Your task to perform on an android device: Open network settings Image 0: 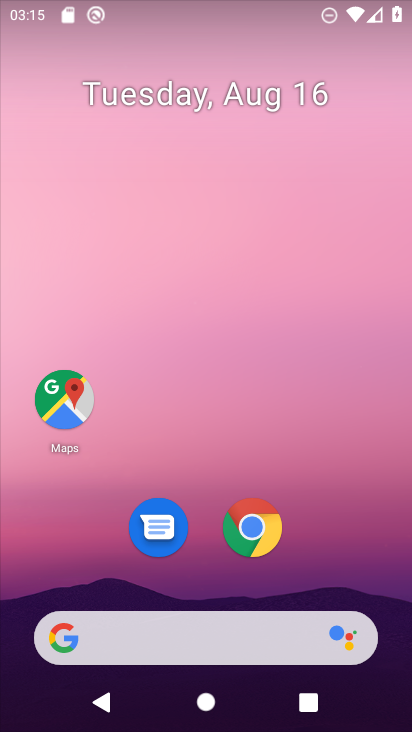
Step 0: drag from (211, 581) to (266, 2)
Your task to perform on an android device: Open network settings Image 1: 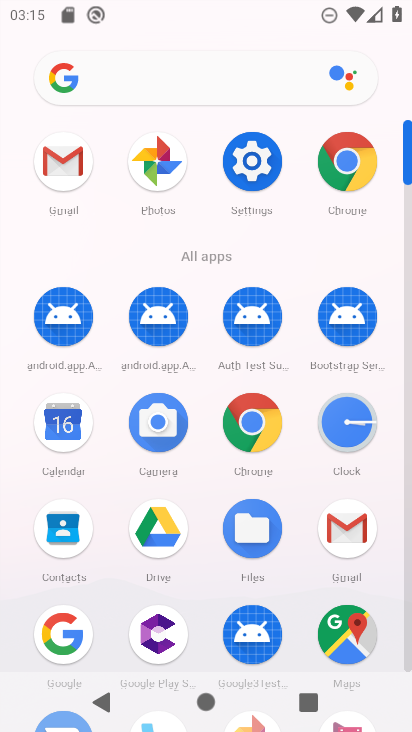
Step 1: click (252, 155)
Your task to perform on an android device: Open network settings Image 2: 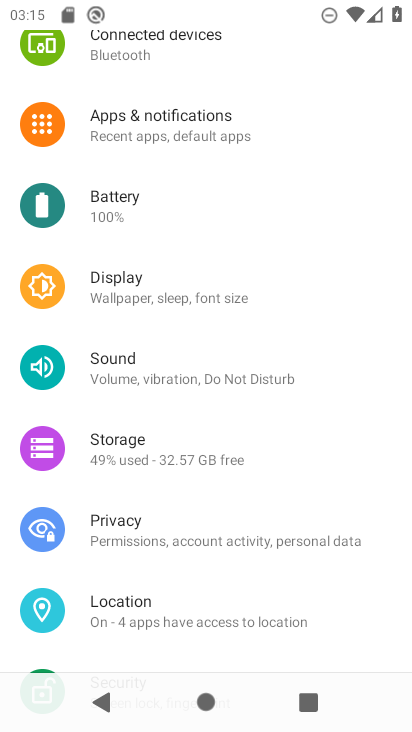
Step 2: drag from (147, 90) to (199, 623)
Your task to perform on an android device: Open network settings Image 3: 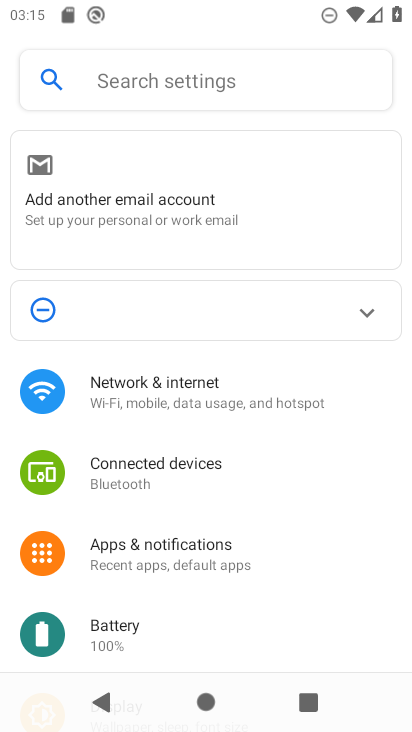
Step 3: click (183, 160)
Your task to perform on an android device: Open network settings Image 4: 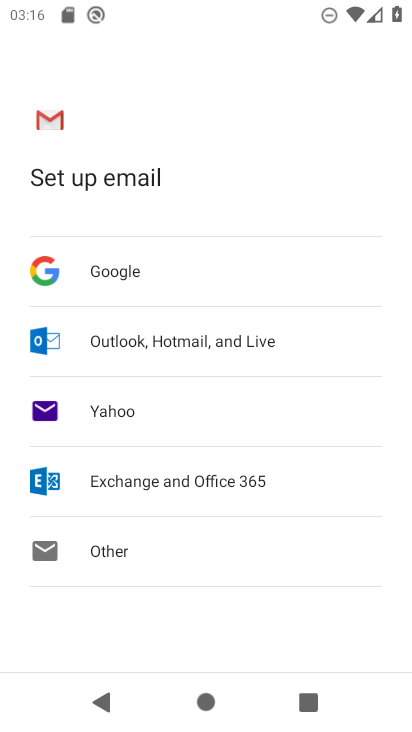
Step 4: press home button
Your task to perform on an android device: Open network settings Image 5: 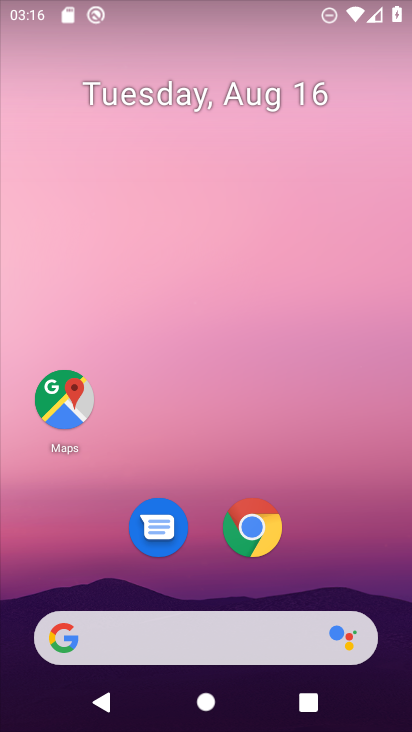
Step 5: drag from (205, 585) to (232, 130)
Your task to perform on an android device: Open network settings Image 6: 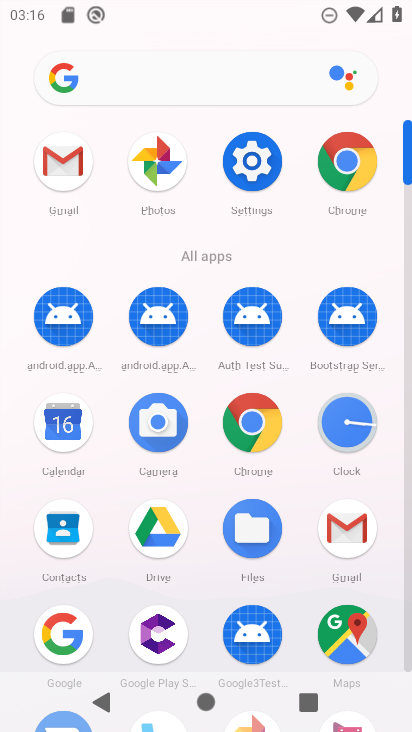
Step 6: click (254, 150)
Your task to perform on an android device: Open network settings Image 7: 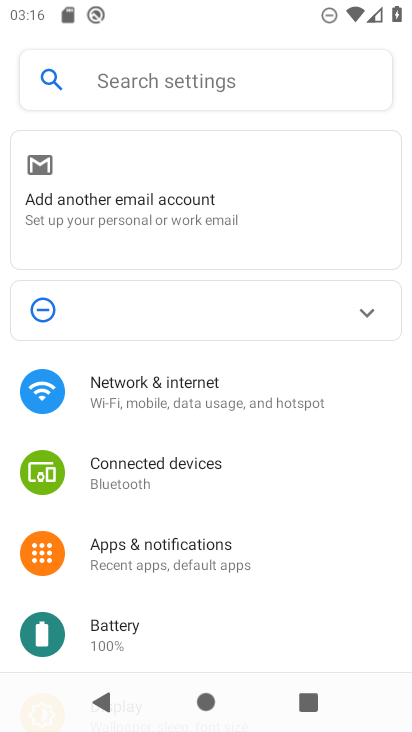
Step 7: click (222, 383)
Your task to perform on an android device: Open network settings Image 8: 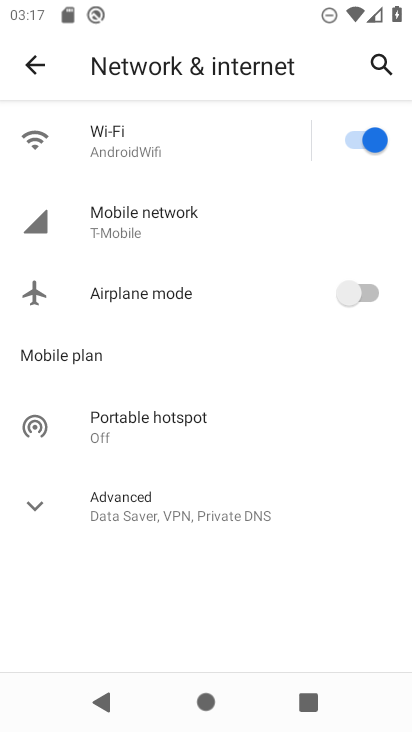
Step 8: click (161, 138)
Your task to perform on an android device: Open network settings Image 9: 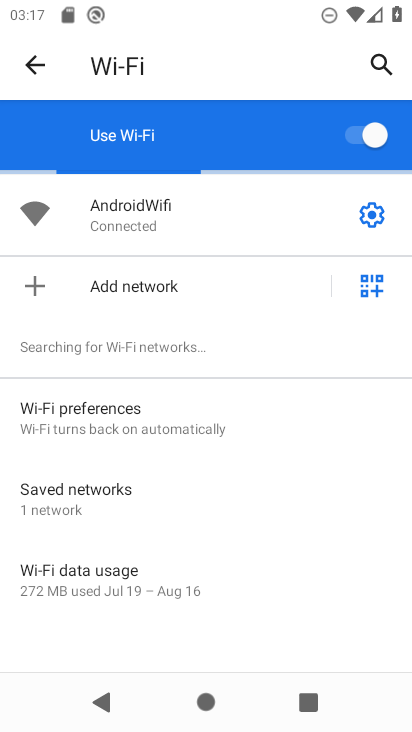
Step 9: task complete